Your task to perform on an android device: Set the phone to "Do not disturb". Image 0: 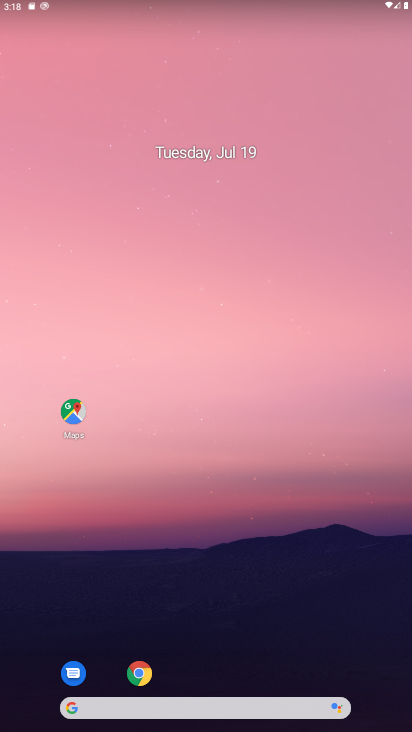
Step 0: drag from (223, 662) to (226, 69)
Your task to perform on an android device: Set the phone to "Do not disturb". Image 1: 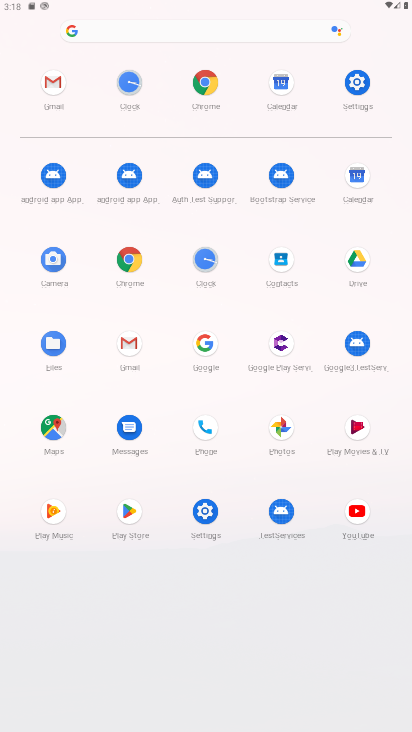
Step 1: click (213, 514)
Your task to perform on an android device: Set the phone to "Do not disturb". Image 2: 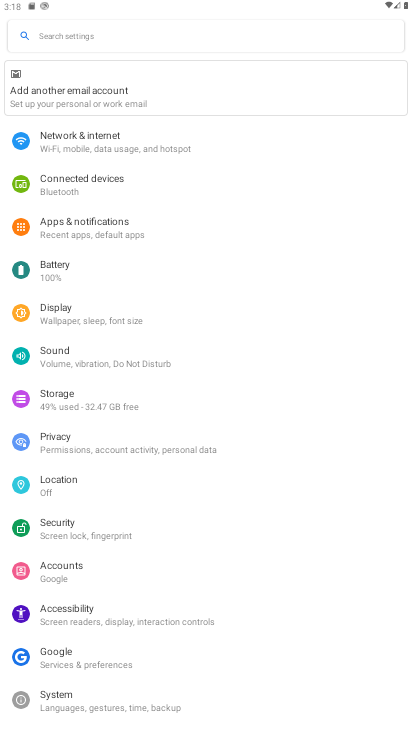
Step 2: click (86, 353)
Your task to perform on an android device: Set the phone to "Do not disturb". Image 3: 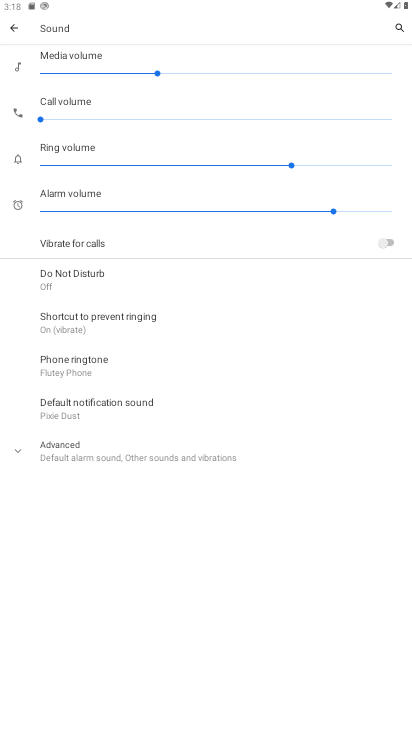
Step 3: click (88, 269)
Your task to perform on an android device: Set the phone to "Do not disturb". Image 4: 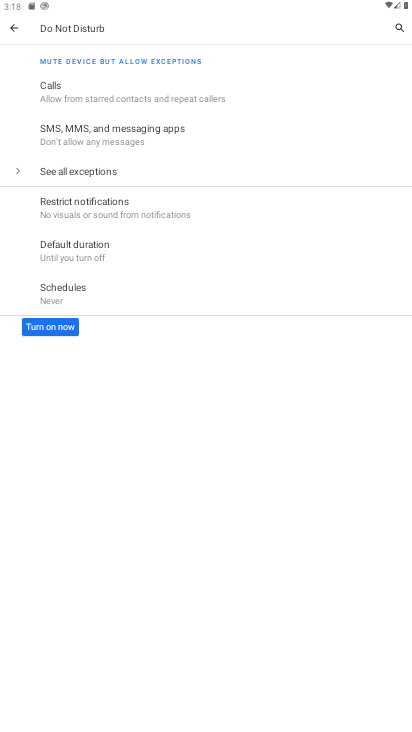
Step 4: click (57, 332)
Your task to perform on an android device: Set the phone to "Do not disturb". Image 5: 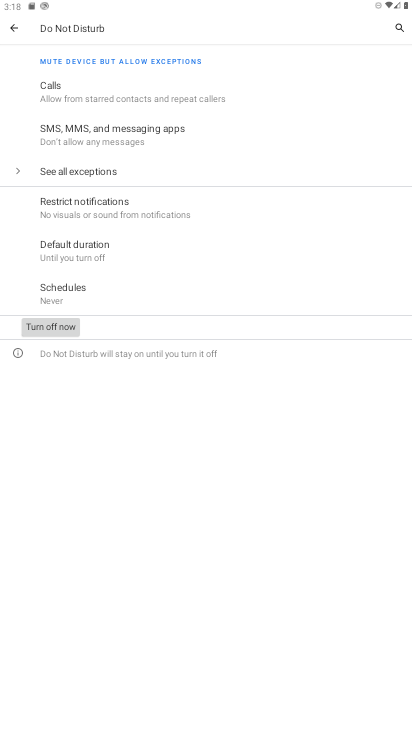
Step 5: task complete